Your task to perform on an android device: move a message to another label in the gmail app Image 0: 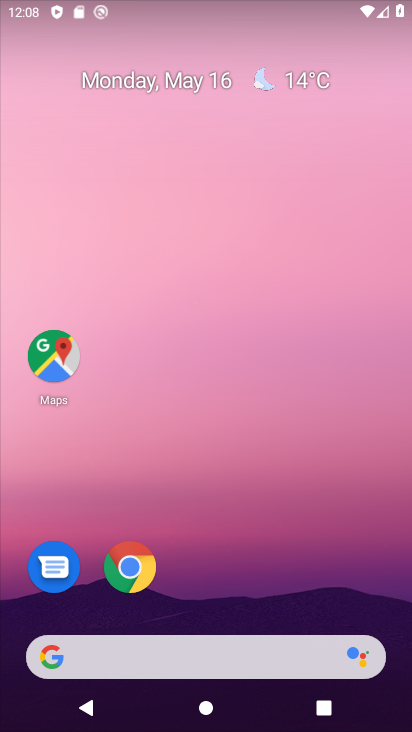
Step 0: drag from (245, 530) to (140, 75)
Your task to perform on an android device: move a message to another label in the gmail app Image 1: 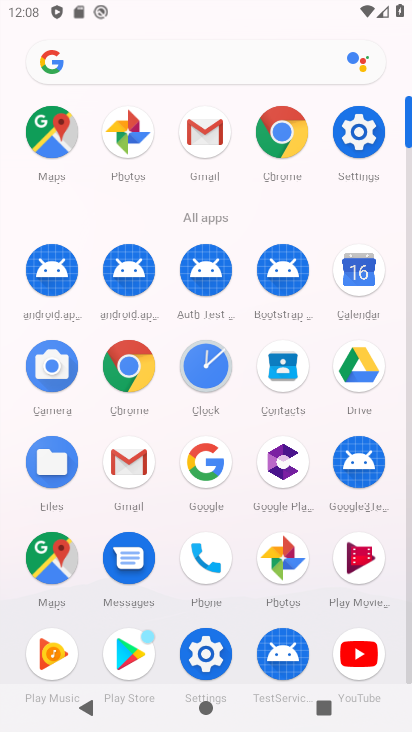
Step 1: click (201, 139)
Your task to perform on an android device: move a message to another label in the gmail app Image 2: 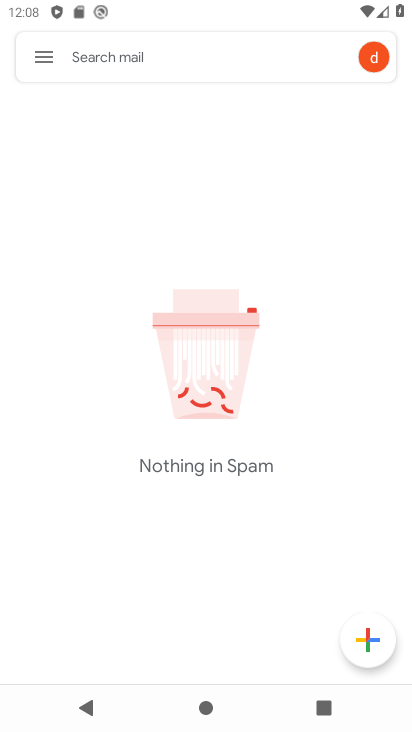
Step 2: click (45, 56)
Your task to perform on an android device: move a message to another label in the gmail app Image 3: 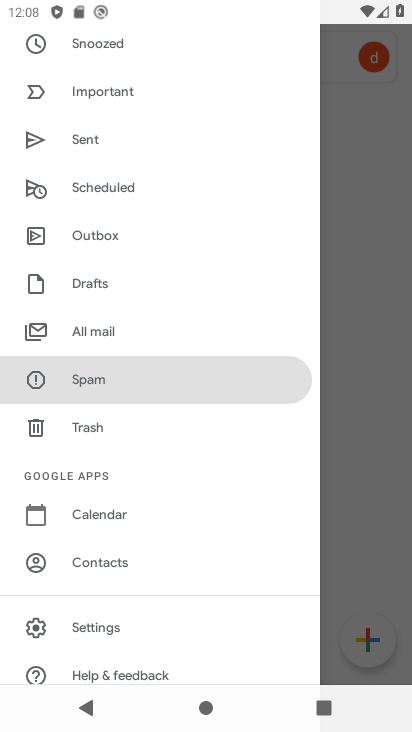
Step 3: click (95, 333)
Your task to perform on an android device: move a message to another label in the gmail app Image 4: 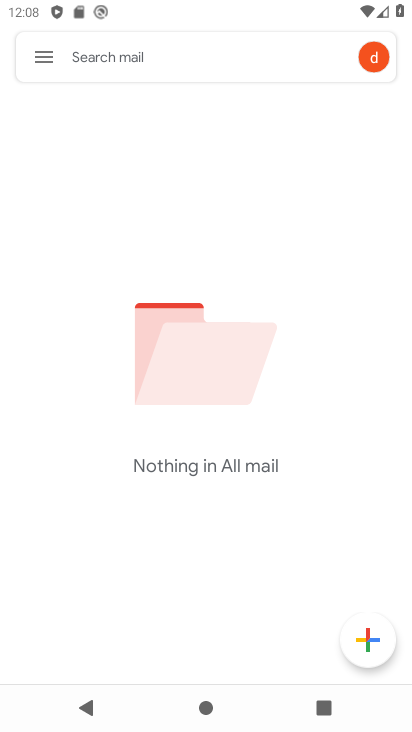
Step 4: task complete